Your task to perform on an android device: Go to settings Image 0: 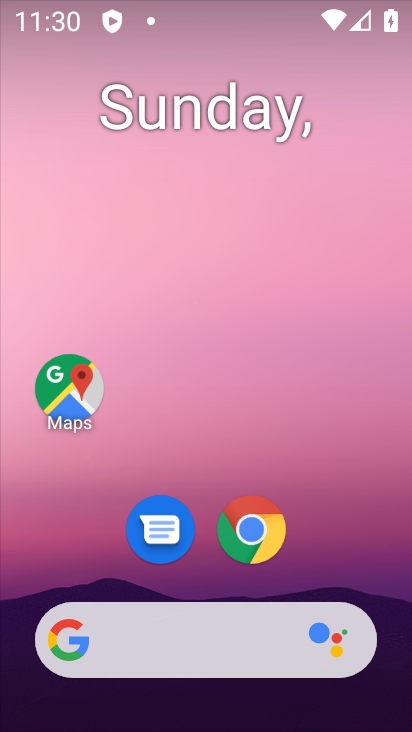
Step 0: drag from (393, 576) to (374, 267)
Your task to perform on an android device: Go to settings Image 1: 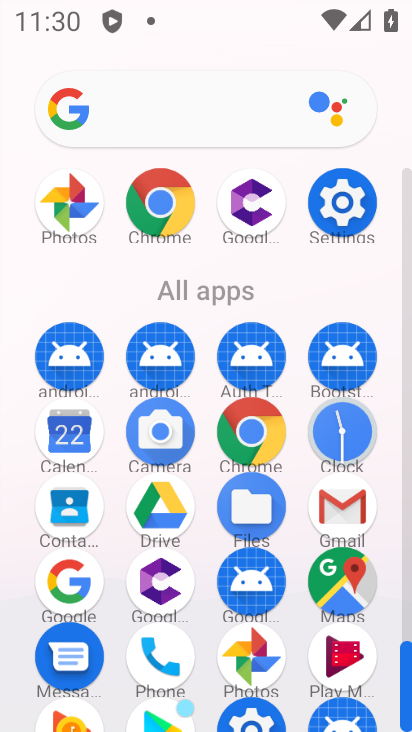
Step 1: drag from (394, 572) to (398, 438)
Your task to perform on an android device: Go to settings Image 2: 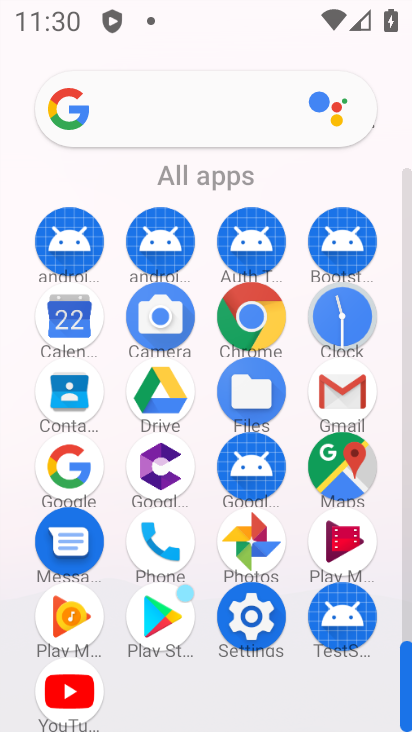
Step 2: click (254, 622)
Your task to perform on an android device: Go to settings Image 3: 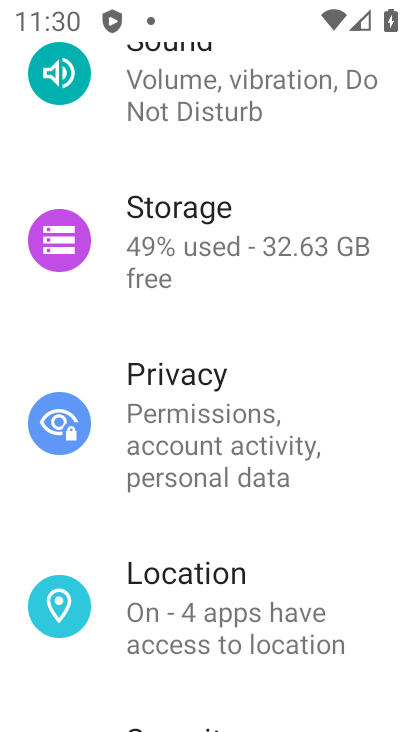
Step 3: task complete